Your task to perform on an android device: turn on bluetooth scan Image 0: 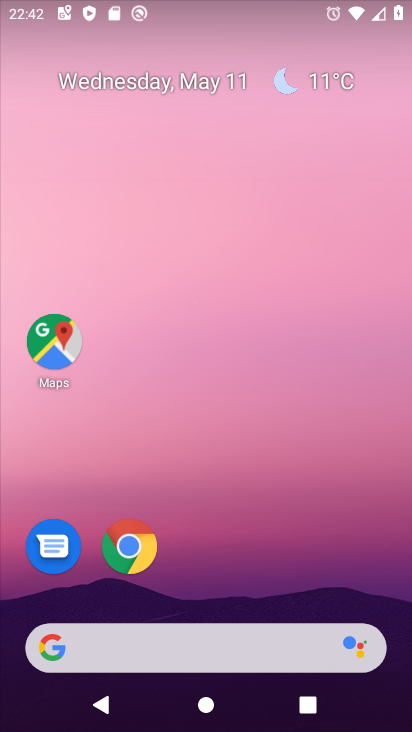
Step 0: drag from (400, 631) to (284, 132)
Your task to perform on an android device: turn on bluetooth scan Image 1: 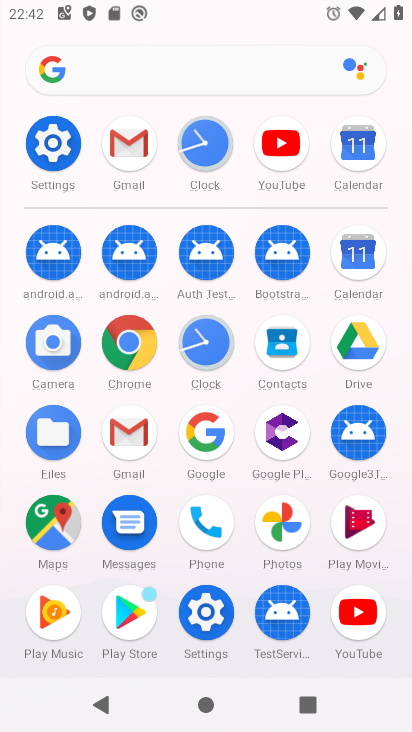
Step 1: click (210, 613)
Your task to perform on an android device: turn on bluetooth scan Image 2: 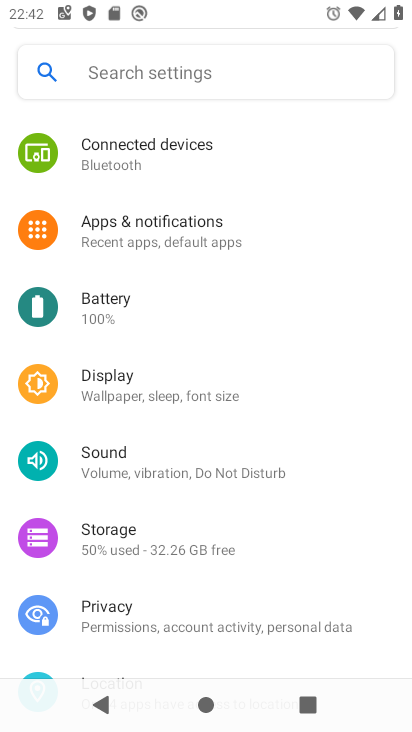
Step 2: drag from (316, 539) to (278, 200)
Your task to perform on an android device: turn on bluetooth scan Image 3: 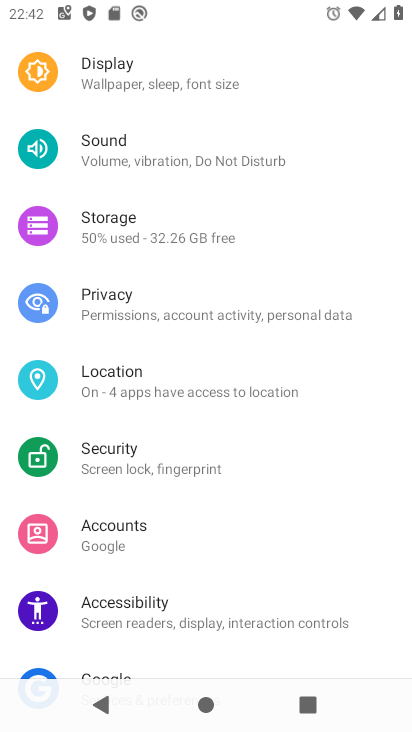
Step 3: click (122, 378)
Your task to perform on an android device: turn on bluetooth scan Image 4: 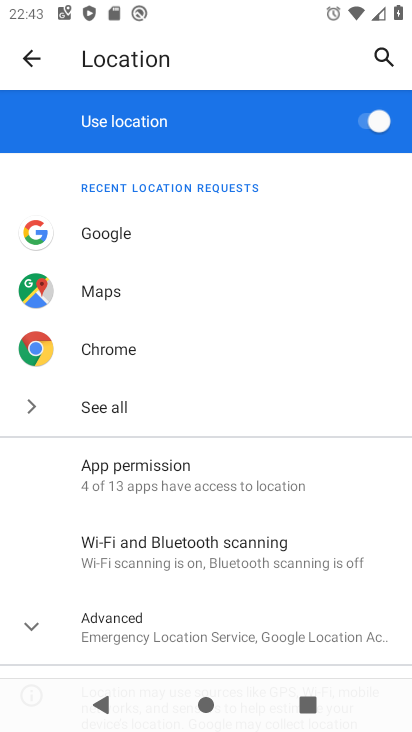
Step 4: click (154, 546)
Your task to perform on an android device: turn on bluetooth scan Image 5: 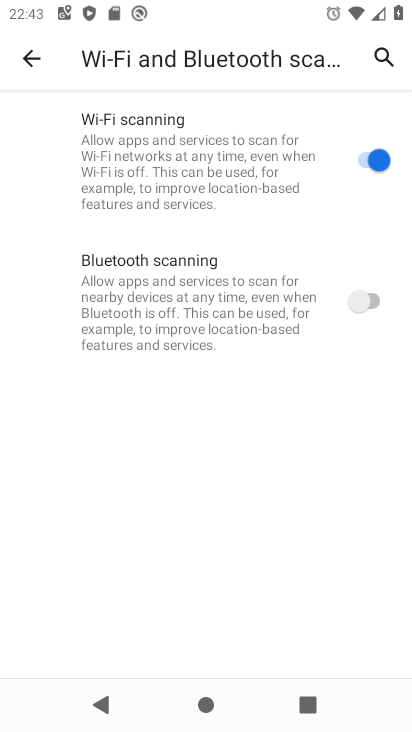
Step 5: click (373, 294)
Your task to perform on an android device: turn on bluetooth scan Image 6: 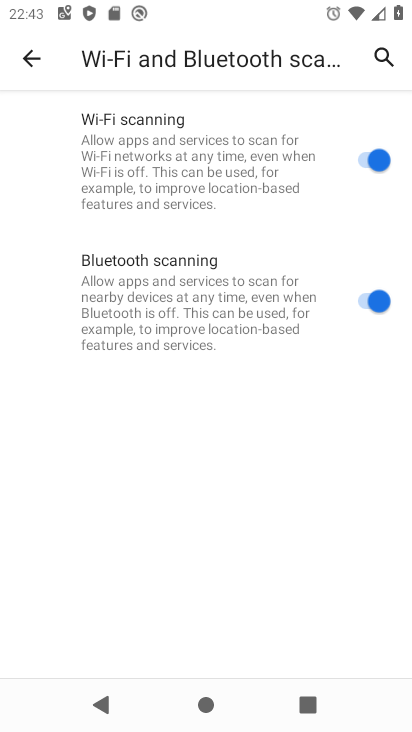
Step 6: task complete